Your task to perform on an android device: Open the map Image 0: 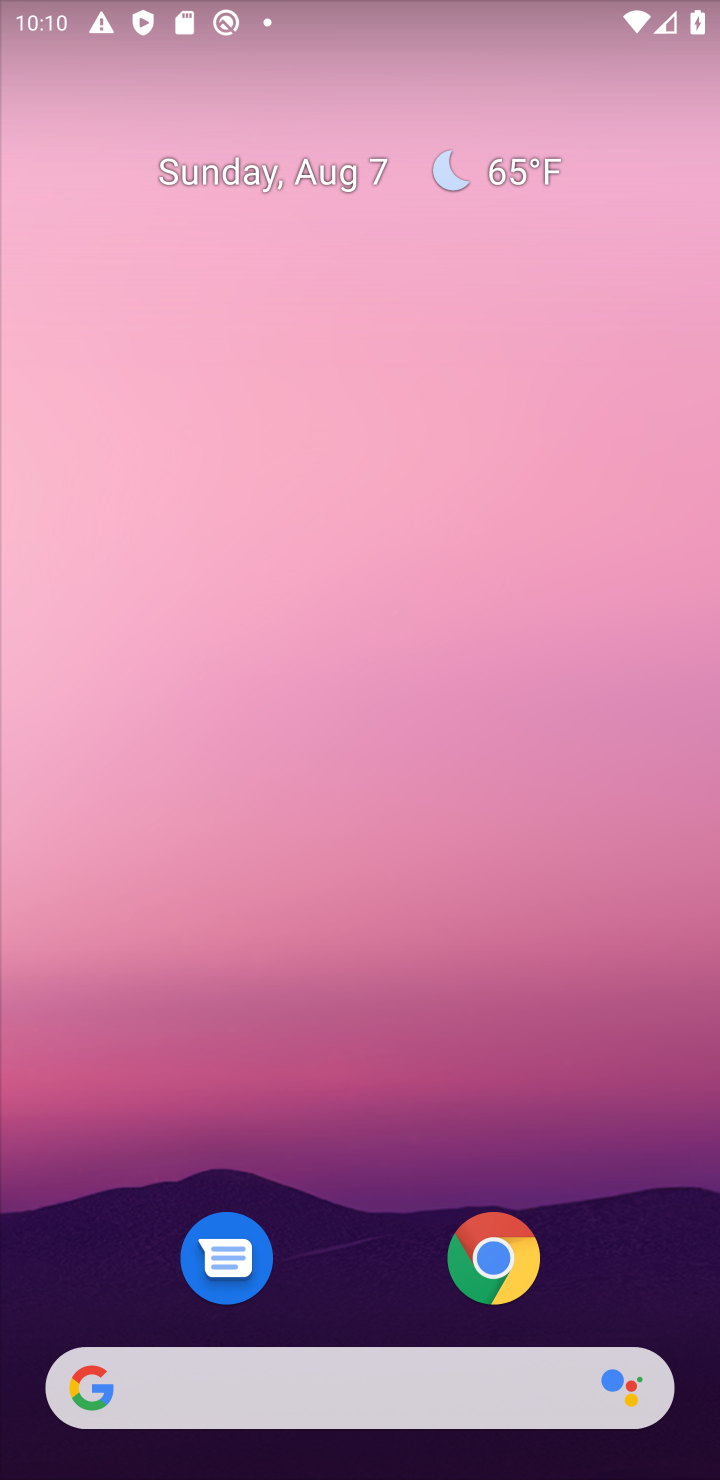
Step 0: press home button
Your task to perform on an android device: Open the map Image 1: 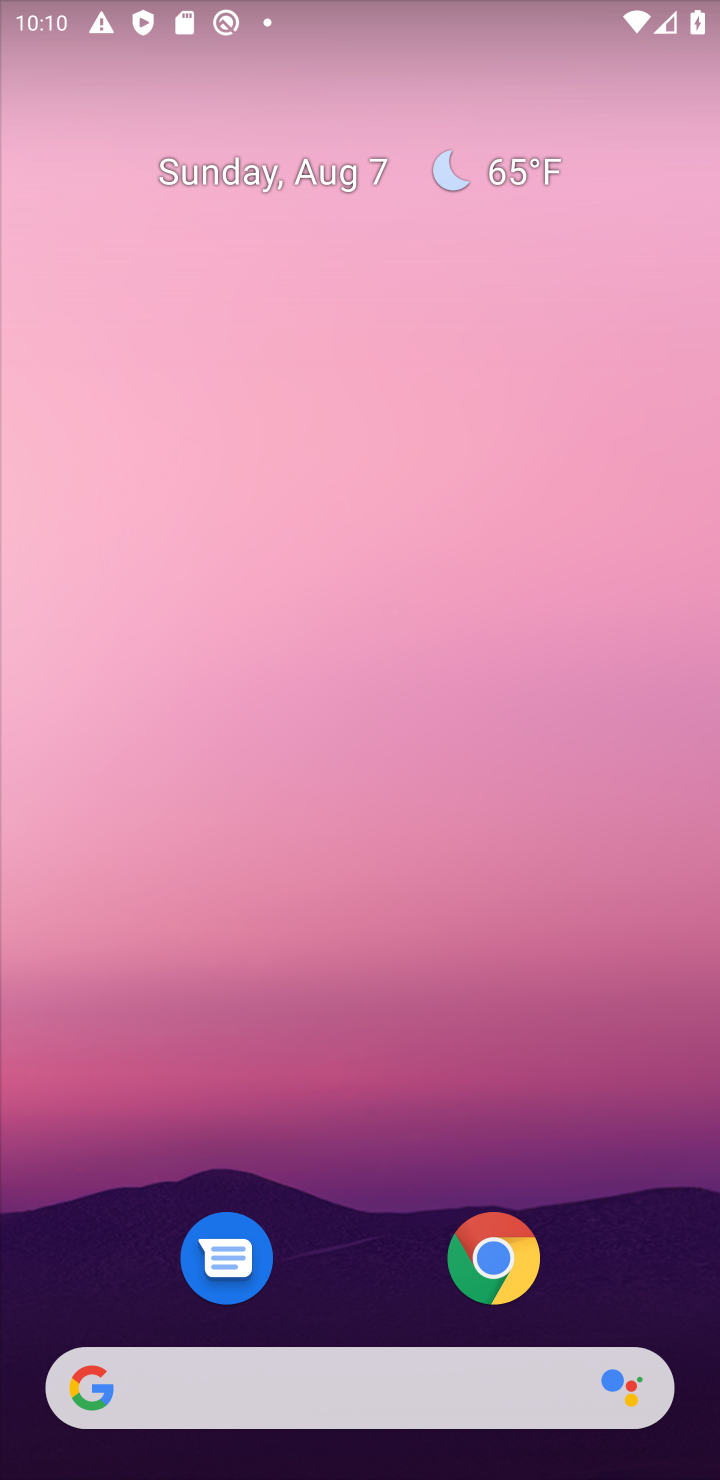
Step 1: drag from (325, 1198) to (229, 0)
Your task to perform on an android device: Open the map Image 2: 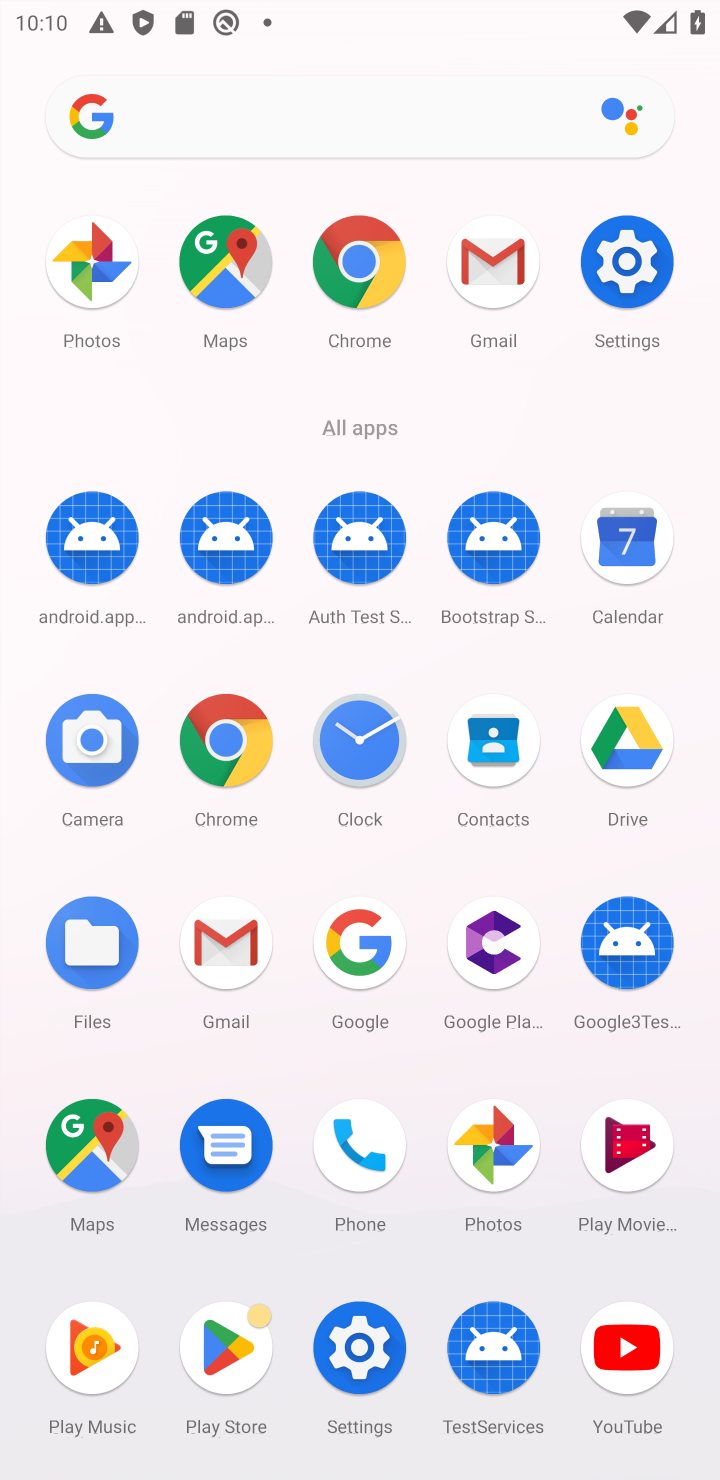
Step 2: click (75, 1149)
Your task to perform on an android device: Open the map Image 3: 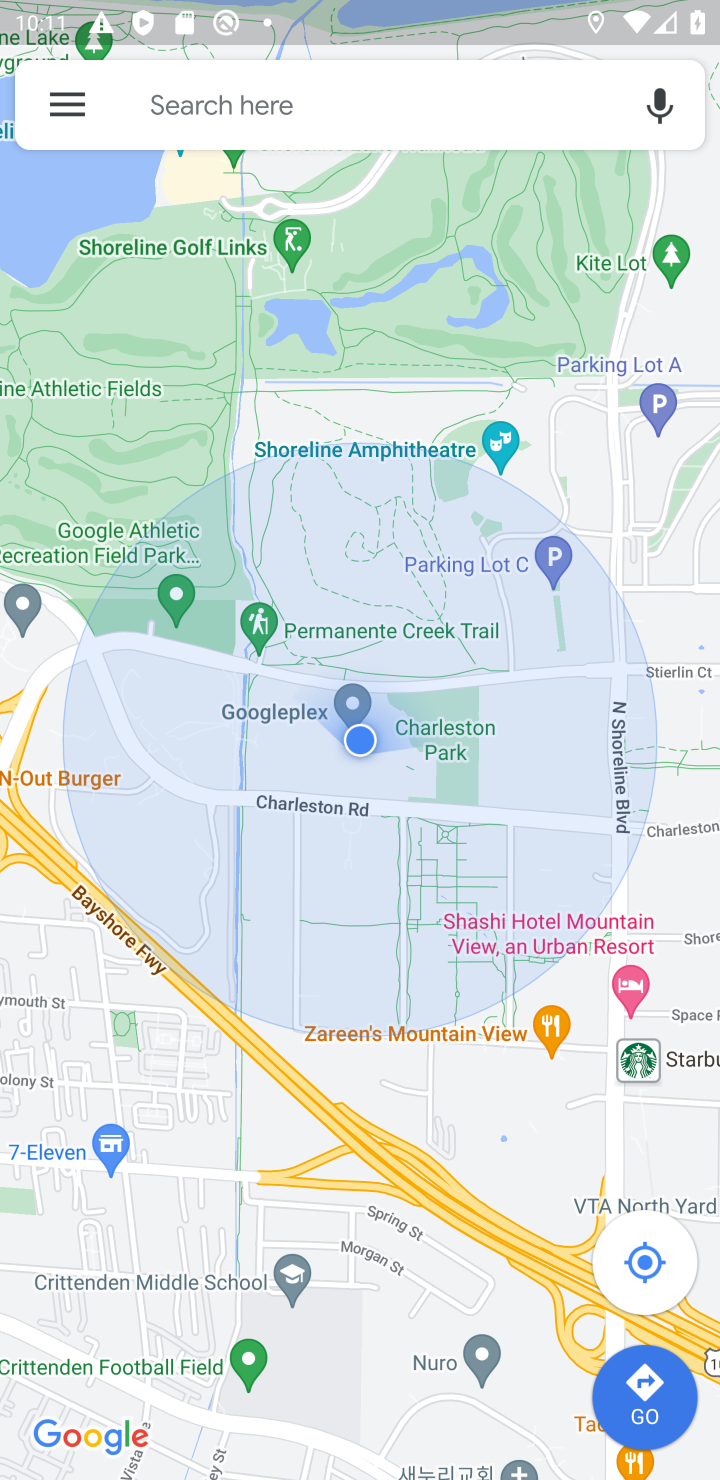
Step 3: task complete